Your task to perform on an android device: Open Google Maps and go to "Timeline" Image 0: 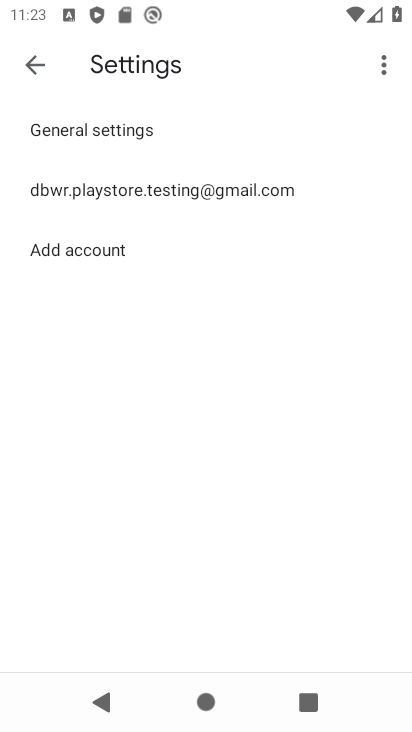
Step 0: press home button
Your task to perform on an android device: Open Google Maps and go to "Timeline" Image 1: 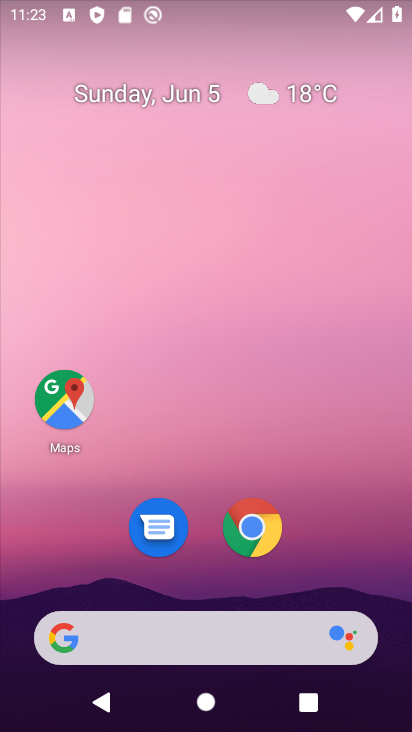
Step 1: click (66, 403)
Your task to perform on an android device: Open Google Maps and go to "Timeline" Image 2: 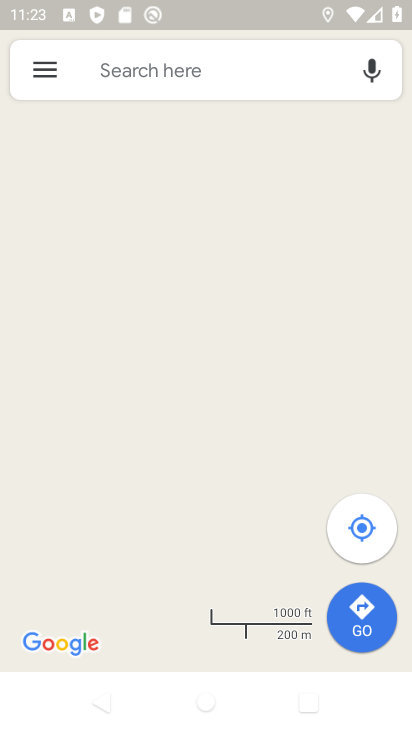
Step 2: click (135, 69)
Your task to perform on an android device: Open Google Maps and go to "Timeline" Image 3: 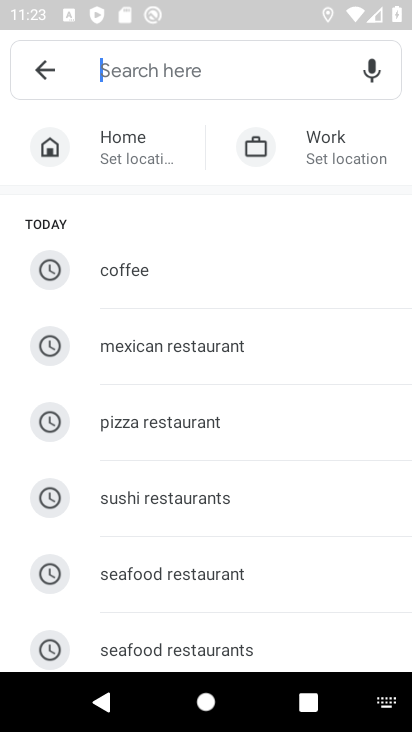
Step 3: type "Timeline"
Your task to perform on an android device: Open Google Maps and go to "Timeline" Image 4: 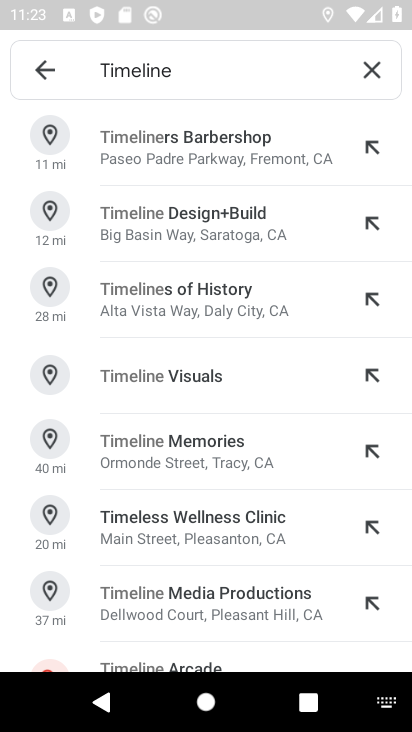
Step 4: click (227, 143)
Your task to perform on an android device: Open Google Maps and go to "Timeline" Image 5: 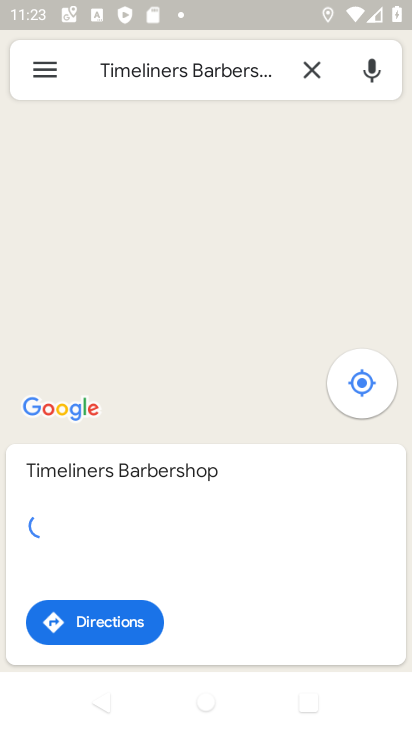
Step 5: task complete